Your task to perform on an android device: Install the Pandora app Image 0: 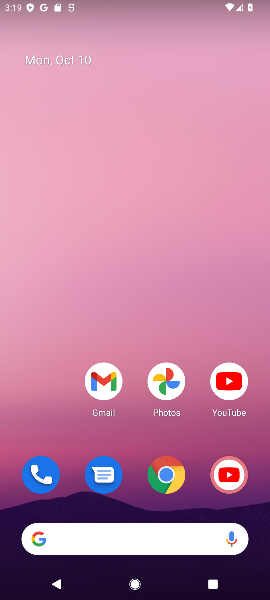
Step 0: drag from (124, 519) to (156, 300)
Your task to perform on an android device: Install the Pandora app Image 1: 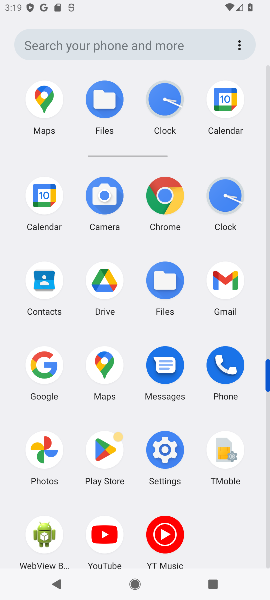
Step 1: click (108, 481)
Your task to perform on an android device: Install the Pandora app Image 2: 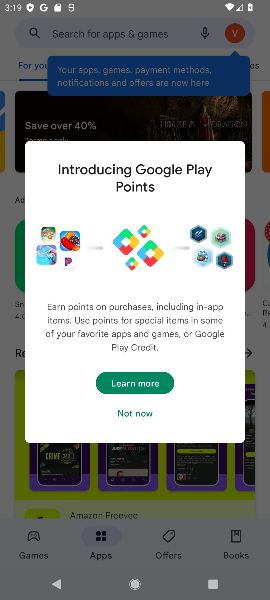
Step 2: click (131, 415)
Your task to perform on an android device: Install the Pandora app Image 3: 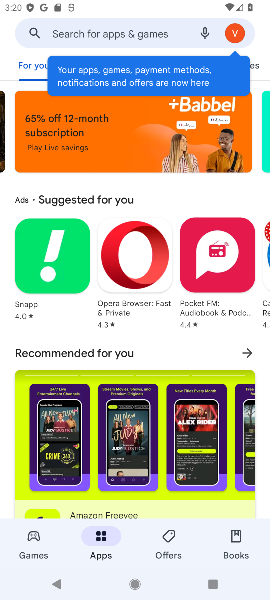
Step 3: click (150, 38)
Your task to perform on an android device: Install the Pandora app Image 4: 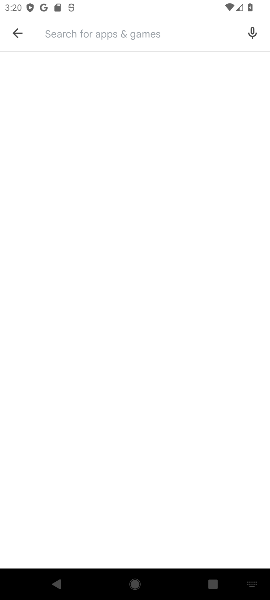
Step 4: type "Pandora app"
Your task to perform on an android device: Install the Pandora app Image 5: 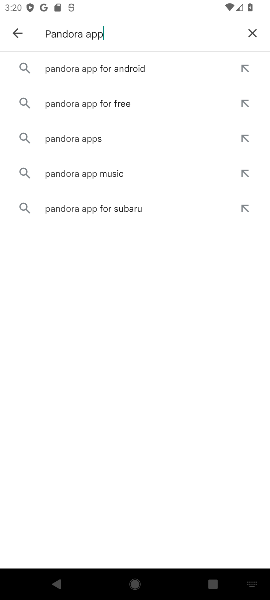
Step 5: click (120, 136)
Your task to perform on an android device: Install the Pandora app Image 6: 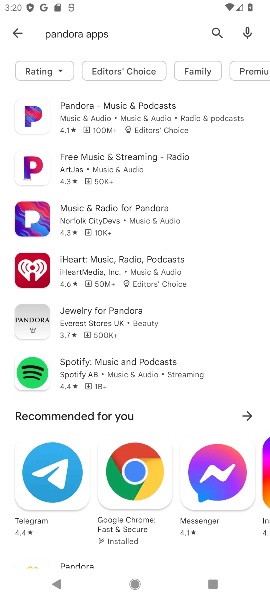
Step 6: click (137, 121)
Your task to perform on an android device: Install the Pandora app Image 7: 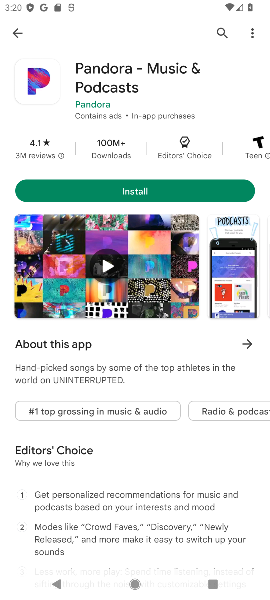
Step 7: click (103, 188)
Your task to perform on an android device: Install the Pandora app Image 8: 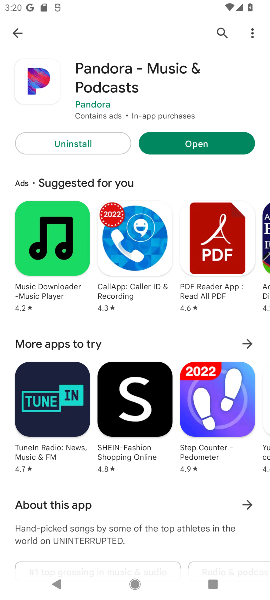
Step 8: task complete